Your task to perform on an android device: remove spam from my inbox in the gmail app Image 0: 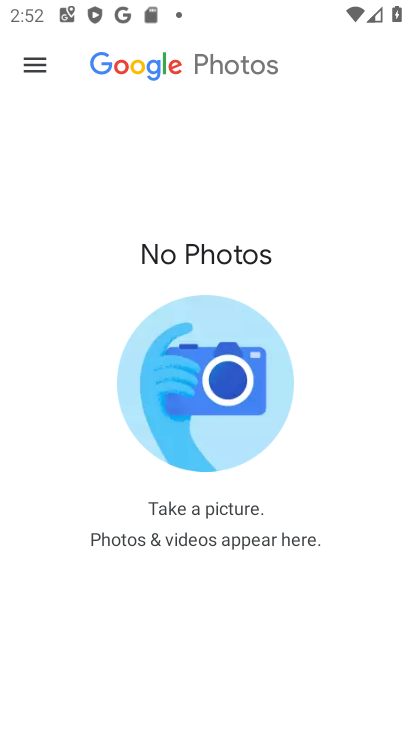
Step 0: press back button
Your task to perform on an android device: remove spam from my inbox in the gmail app Image 1: 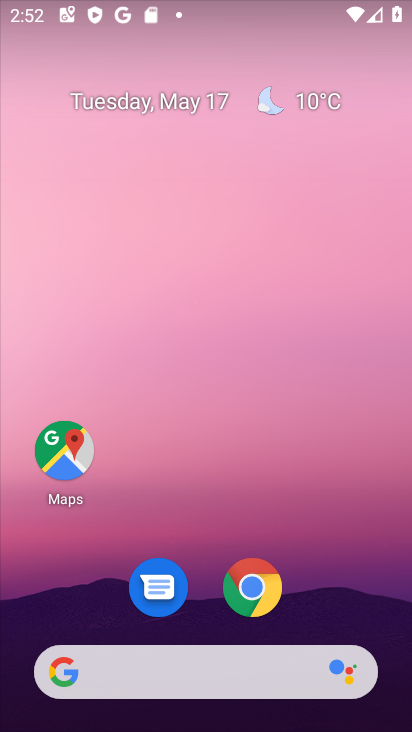
Step 1: drag from (366, 537) to (271, 7)
Your task to perform on an android device: remove spam from my inbox in the gmail app Image 2: 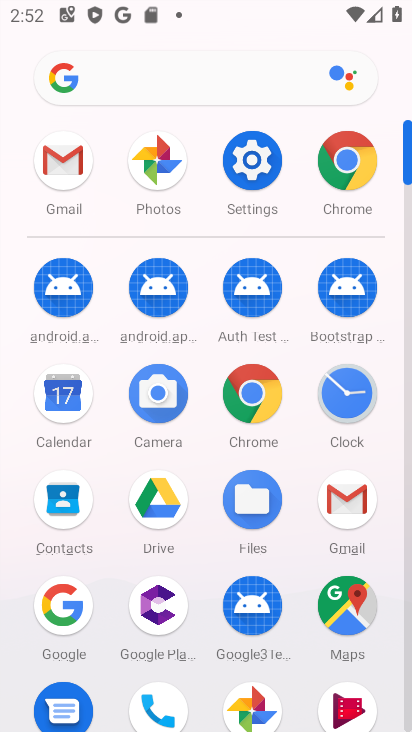
Step 2: drag from (21, 554) to (12, 268)
Your task to perform on an android device: remove spam from my inbox in the gmail app Image 3: 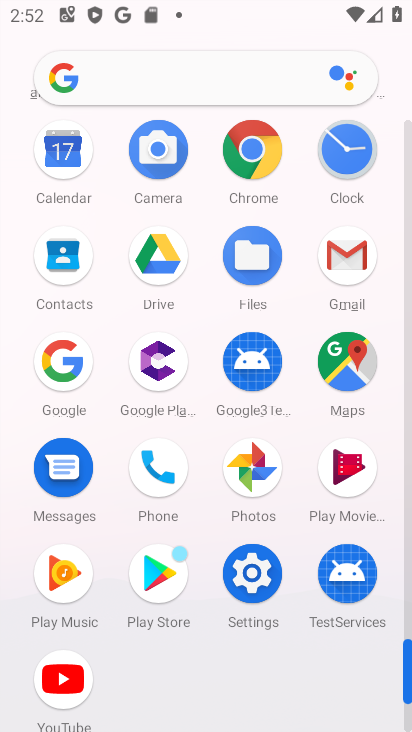
Step 3: click (345, 245)
Your task to perform on an android device: remove spam from my inbox in the gmail app Image 4: 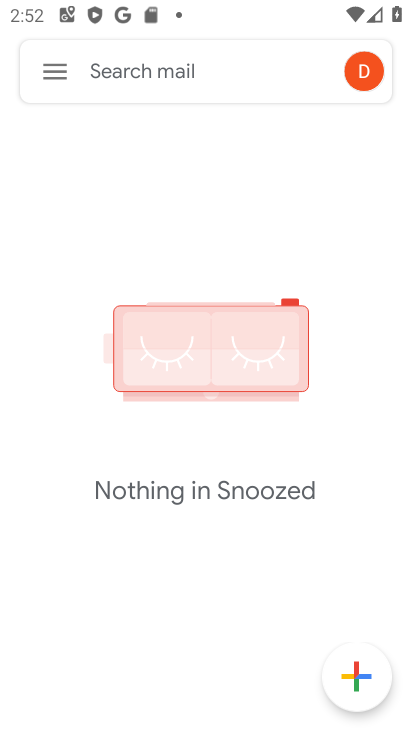
Step 4: click (41, 72)
Your task to perform on an android device: remove spam from my inbox in the gmail app Image 5: 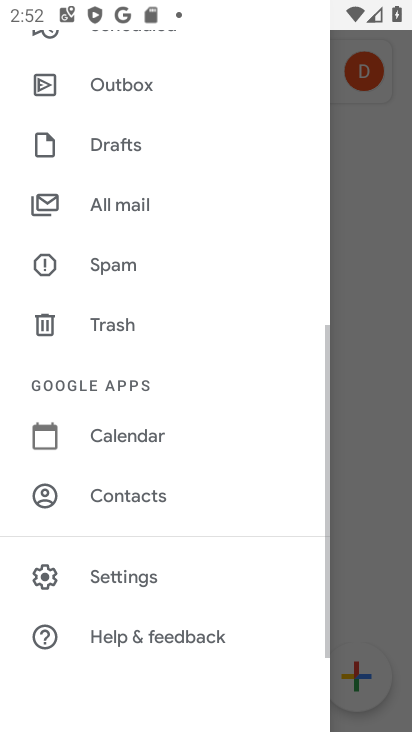
Step 5: drag from (238, 559) to (238, 131)
Your task to perform on an android device: remove spam from my inbox in the gmail app Image 6: 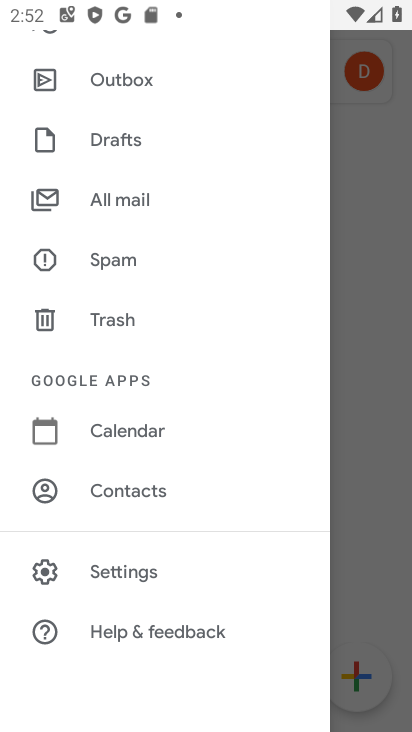
Step 6: click (119, 254)
Your task to perform on an android device: remove spam from my inbox in the gmail app Image 7: 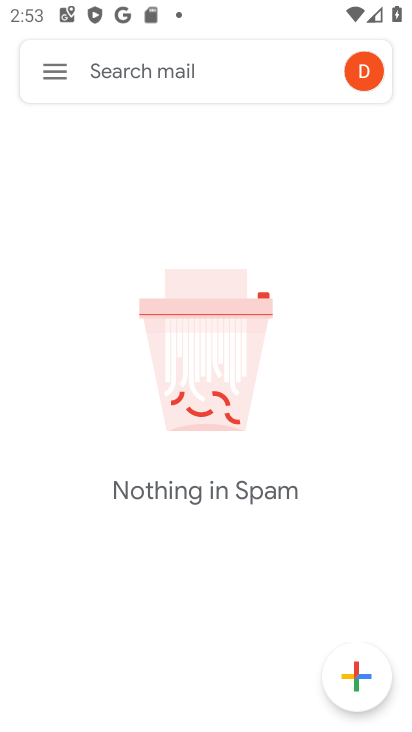
Step 7: task complete